Your task to perform on an android device: Open Android settings Image 0: 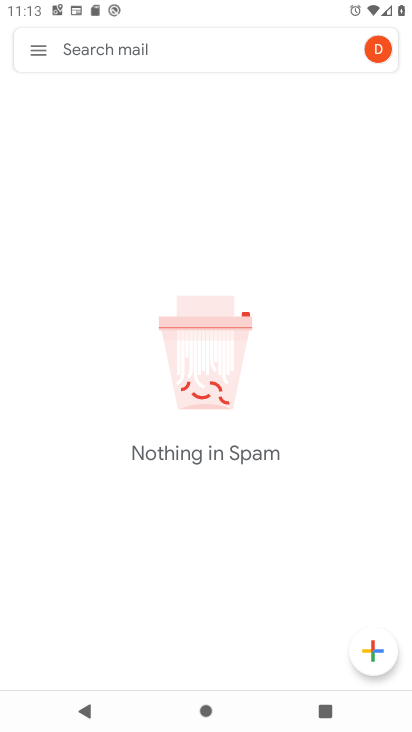
Step 0: press home button
Your task to perform on an android device: Open Android settings Image 1: 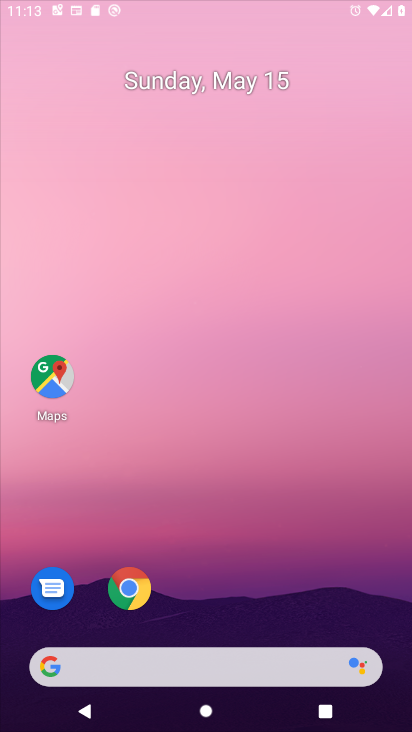
Step 1: click (265, 537)
Your task to perform on an android device: Open Android settings Image 2: 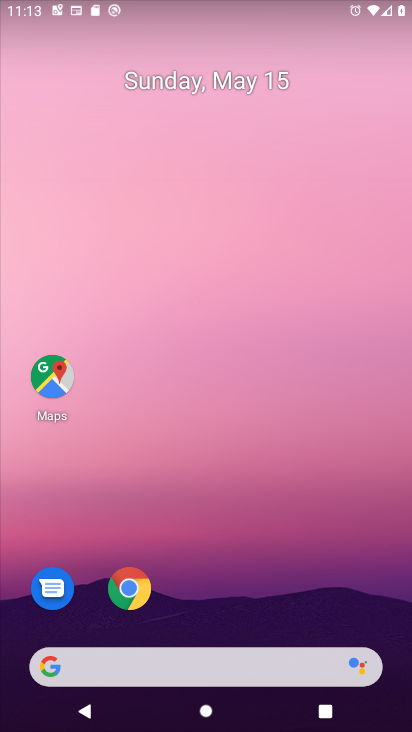
Step 2: drag from (265, 537) to (234, 294)
Your task to perform on an android device: Open Android settings Image 3: 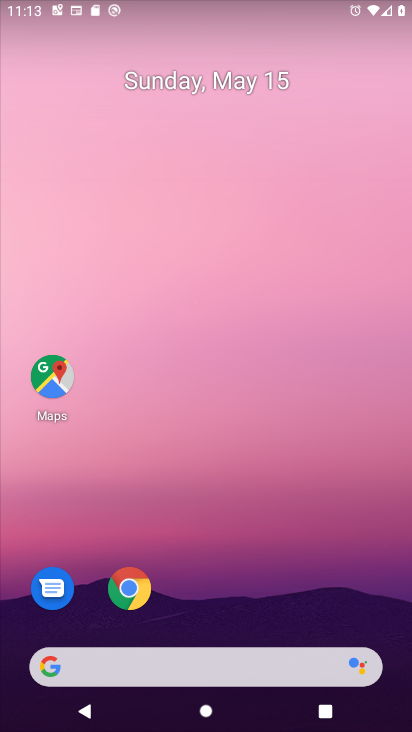
Step 3: drag from (213, 628) to (212, 58)
Your task to perform on an android device: Open Android settings Image 4: 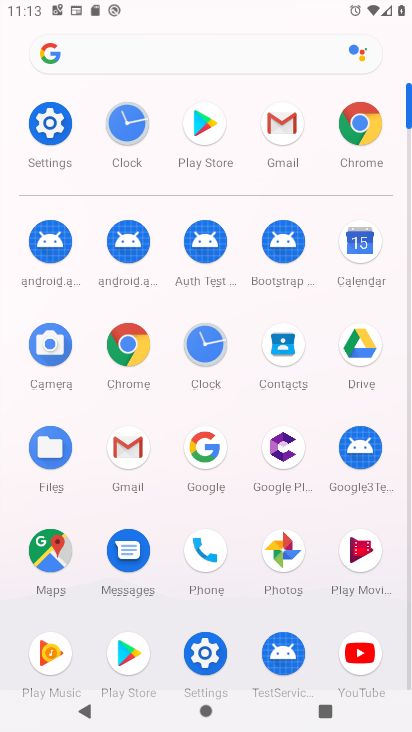
Step 4: click (54, 127)
Your task to perform on an android device: Open Android settings Image 5: 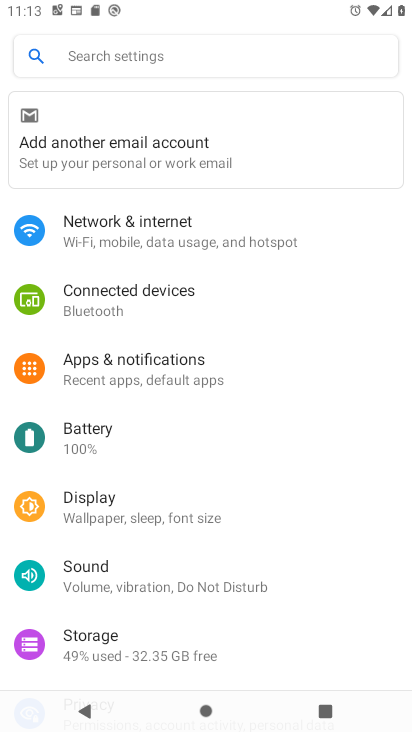
Step 5: drag from (289, 610) to (284, 214)
Your task to perform on an android device: Open Android settings Image 6: 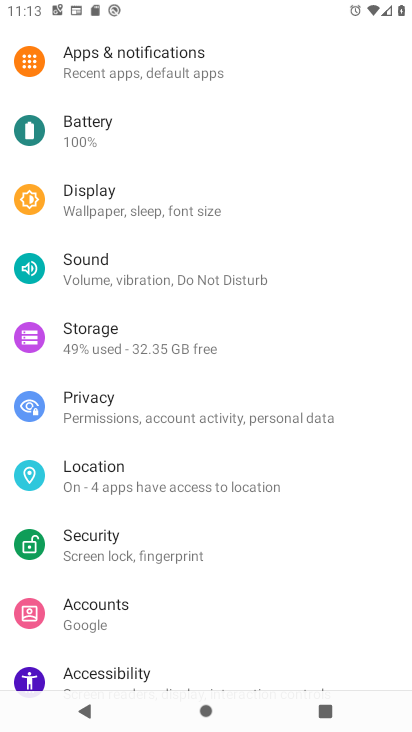
Step 6: drag from (263, 638) to (315, 198)
Your task to perform on an android device: Open Android settings Image 7: 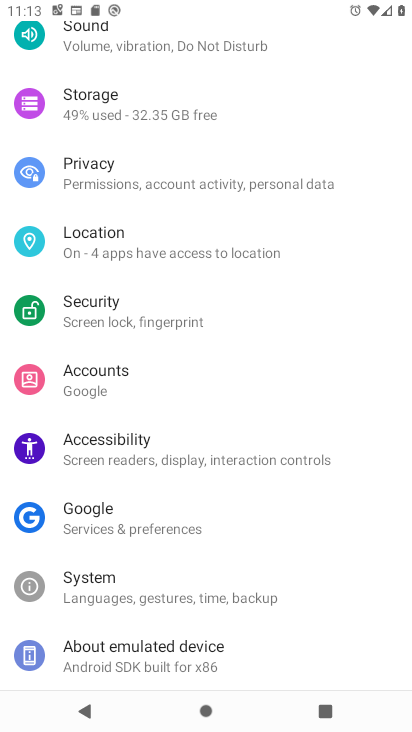
Step 7: click (210, 648)
Your task to perform on an android device: Open Android settings Image 8: 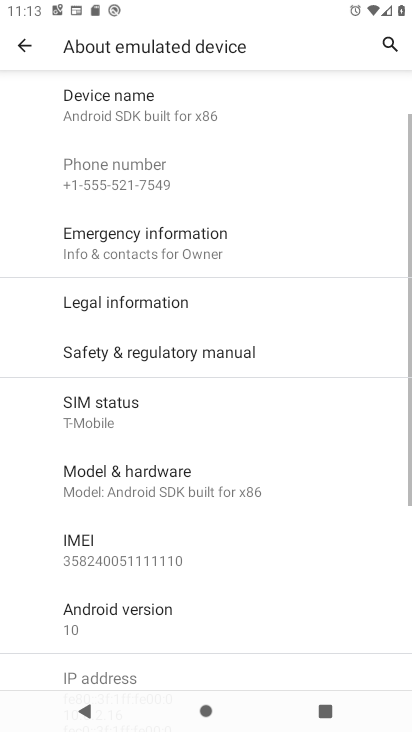
Step 8: click (119, 618)
Your task to perform on an android device: Open Android settings Image 9: 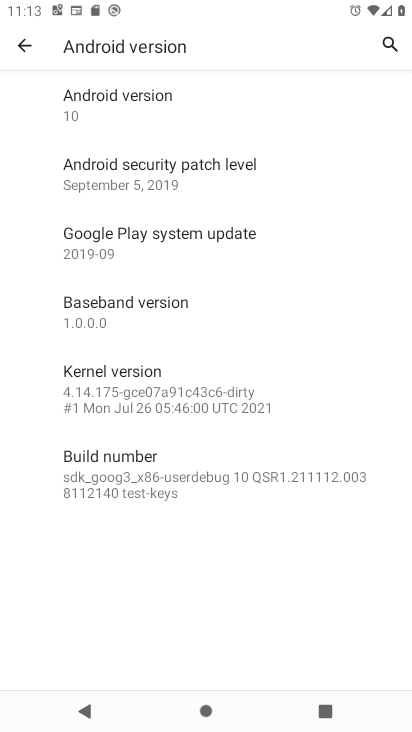
Step 9: task complete